Your task to perform on an android device: Do I have any events today? Image 0: 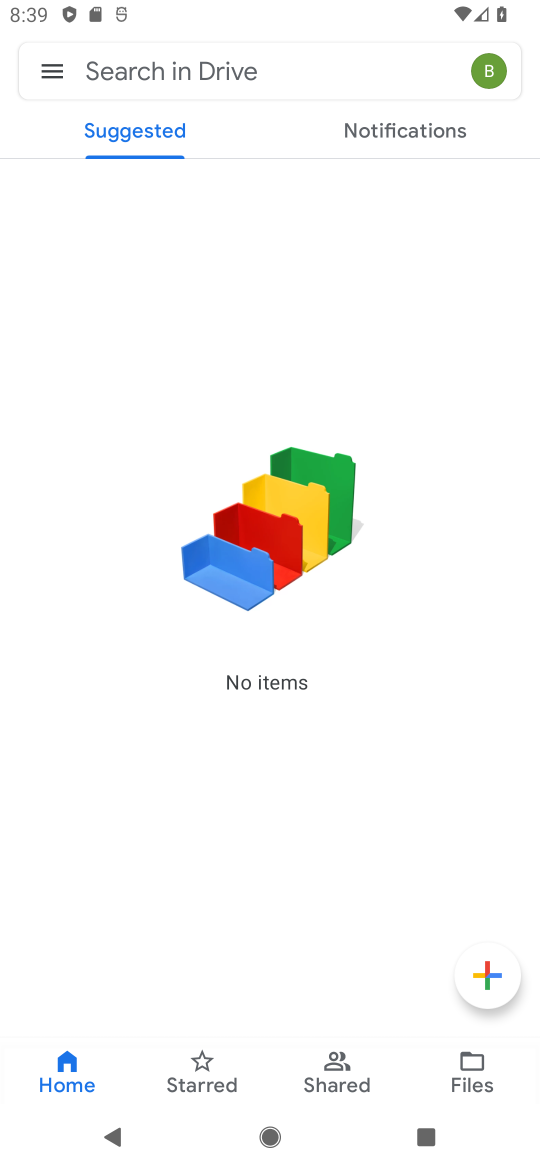
Step 0: press home button
Your task to perform on an android device: Do I have any events today? Image 1: 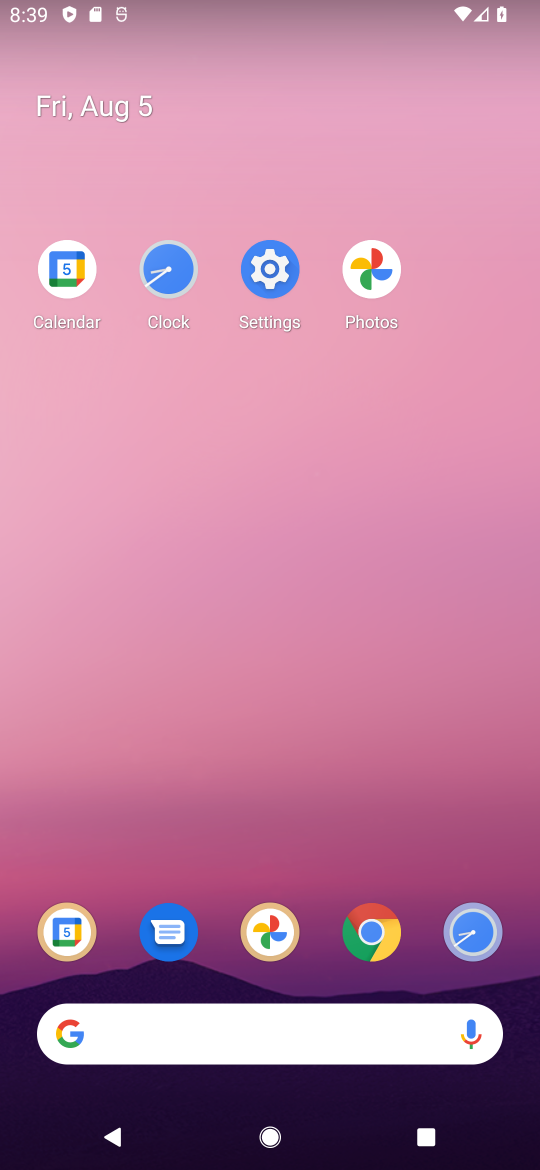
Step 1: click (88, 267)
Your task to perform on an android device: Do I have any events today? Image 2: 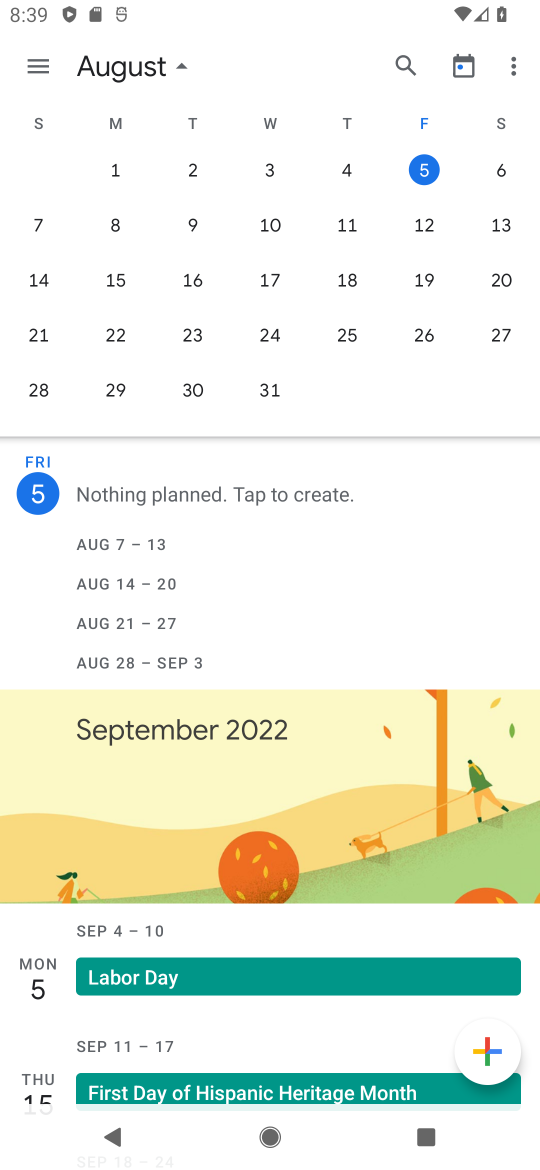
Step 2: click (427, 176)
Your task to perform on an android device: Do I have any events today? Image 3: 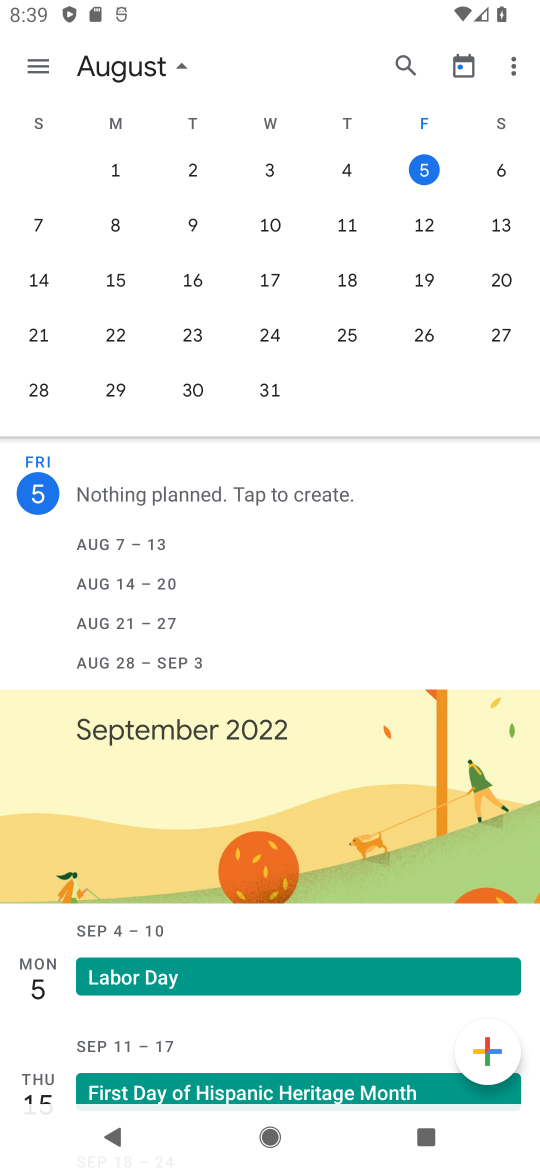
Step 3: task complete